Your task to perform on an android device: turn off improve location accuracy Image 0: 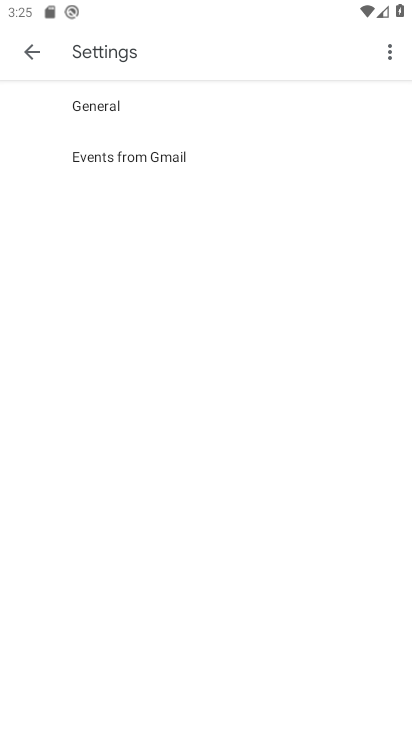
Step 0: press home button
Your task to perform on an android device: turn off improve location accuracy Image 1: 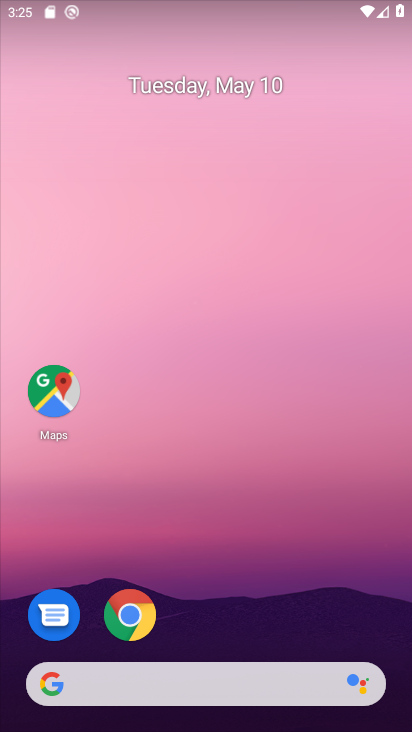
Step 1: drag from (213, 494) to (206, 67)
Your task to perform on an android device: turn off improve location accuracy Image 2: 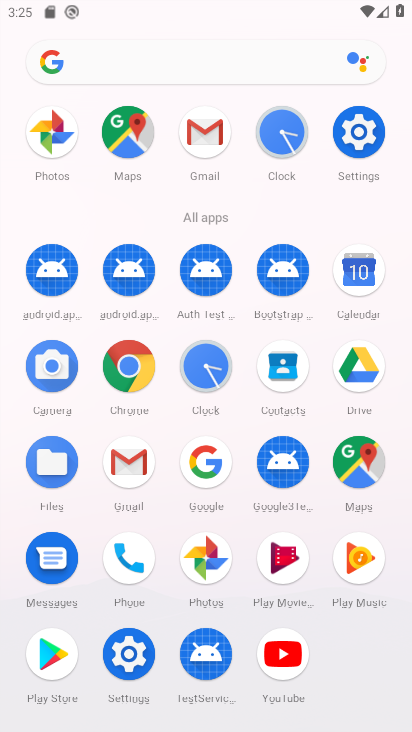
Step 2: click (354, 140)
Your task to perform on an android device: turn off improve location accuracy Image 3: 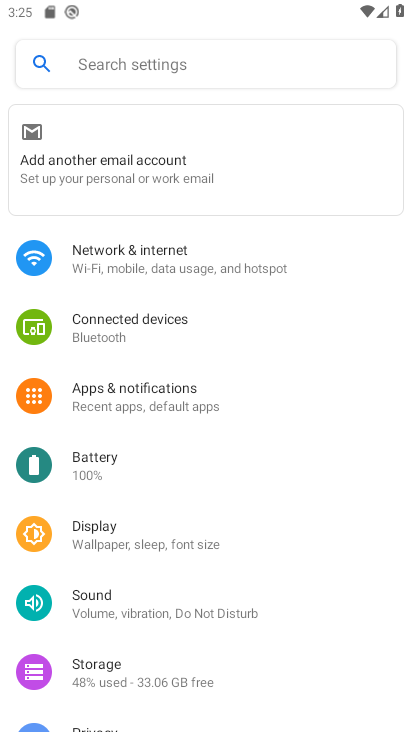
Step 3: drag from (275, 638) to (238, 224)
Your task to perform on an android device: turn off improve location accuracy Image 4: 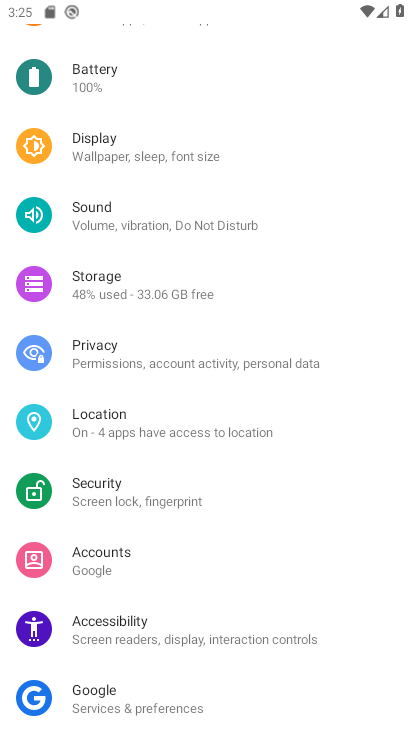
Step 4: click (130, 436)
Your task to perform on an android device: turn off improve location accuracy Image 5: 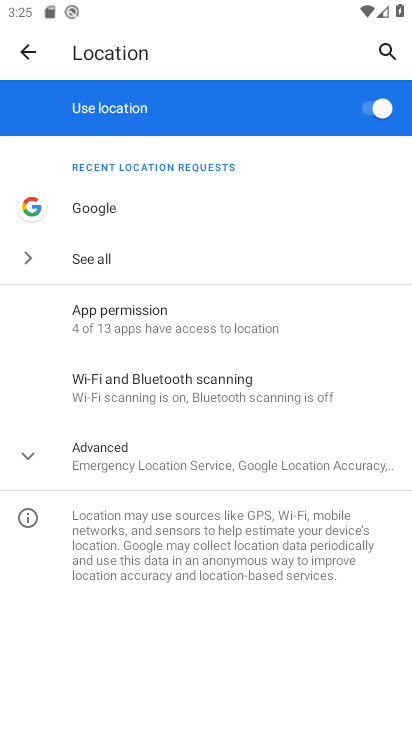
Step 5: click (32, 456)
Your task to perform on an android device: turn off improve location accuracy Image 6: 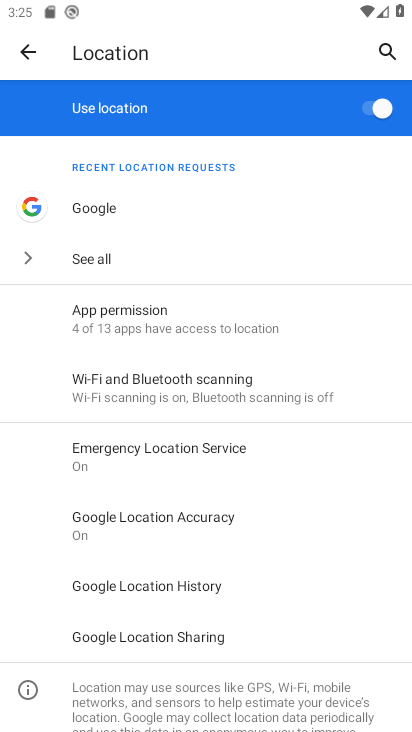
Step 6: click (221, 523)
Your task to perform on an android device: turn off improve location accuracy Image 7: 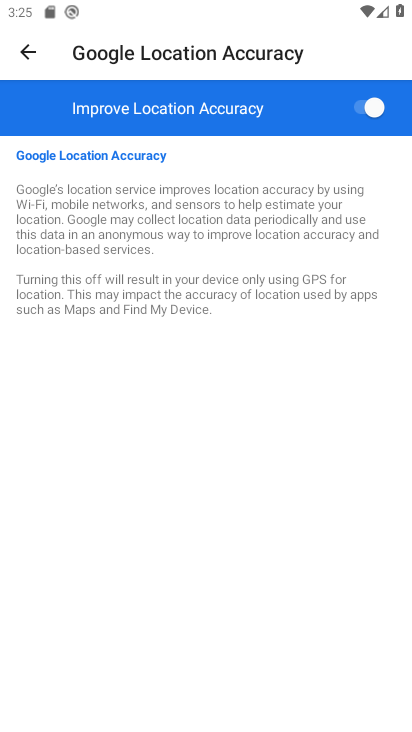
Step 7: click (368, 114)
Your task to perform on an android device: turn off improve location accuracy Image 8: 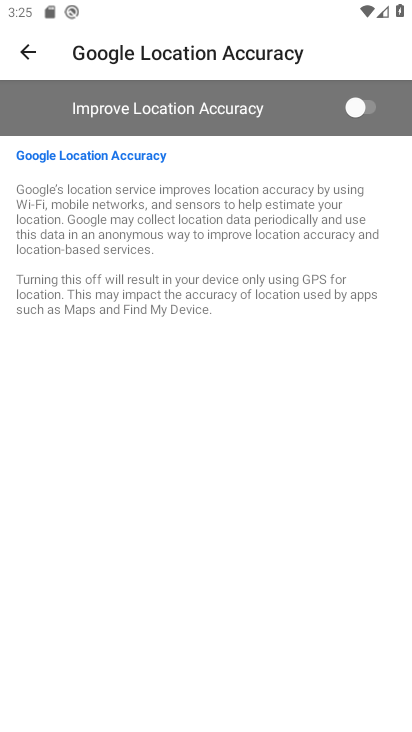
Step 8: task complete